Your task to perform on an android device: find which apps use the phone's location Image 0: 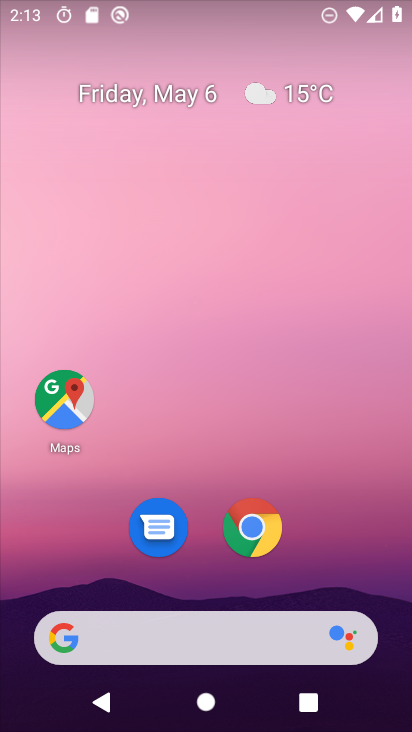
Step 0: drag from (340, 548) to (63, 79)
Your task to perform on an android device: find which apps use the phone's location Image 1: 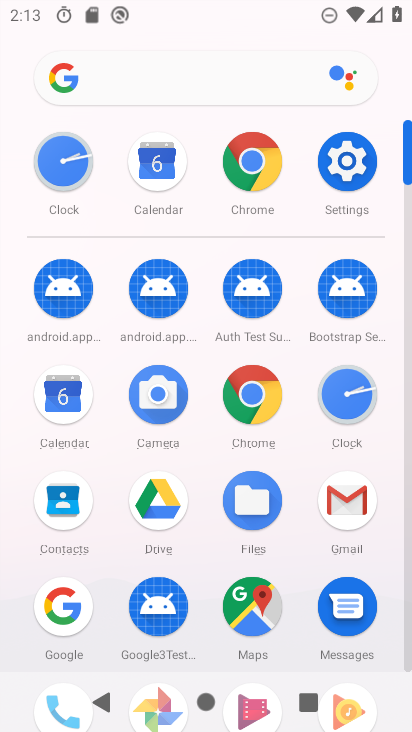
Step 1: click (347, 167)
Your task to perform on an android device: find which apps use the phone's location Image 2: 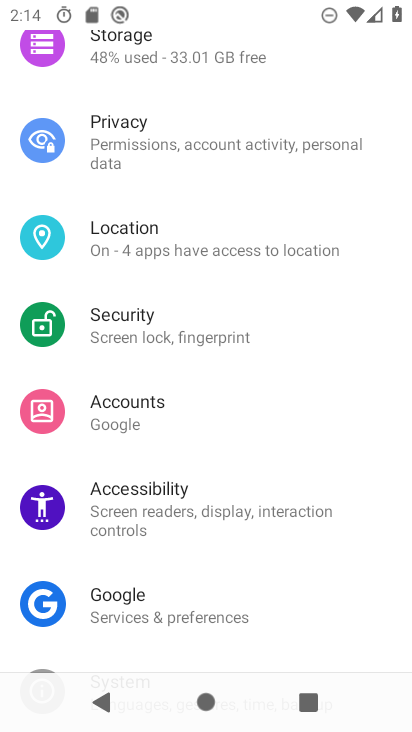
Step 2: click (148, 251)
Your task to perform on an android device: find which apps use the phone's location Image 3: 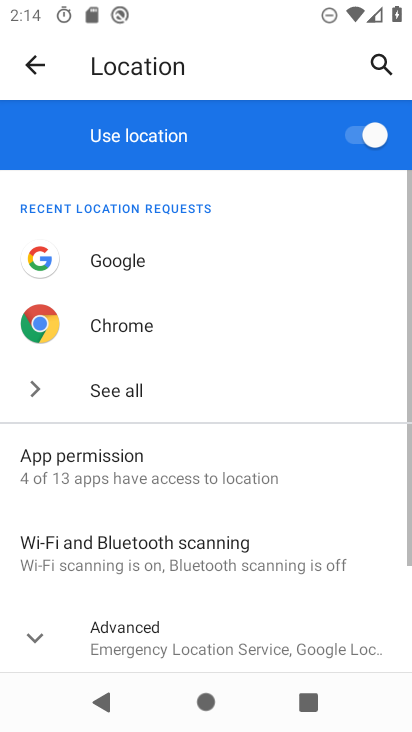
Step 3: click (78, 477)
Your task to perform on an android device: find which apps use the phone's location Image 4: 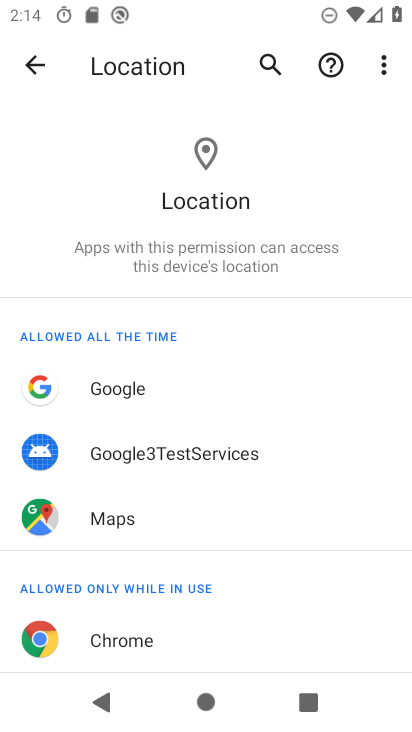
Step 4: task complete